Your task to perform on an android device: What is the recent news? Image 0: 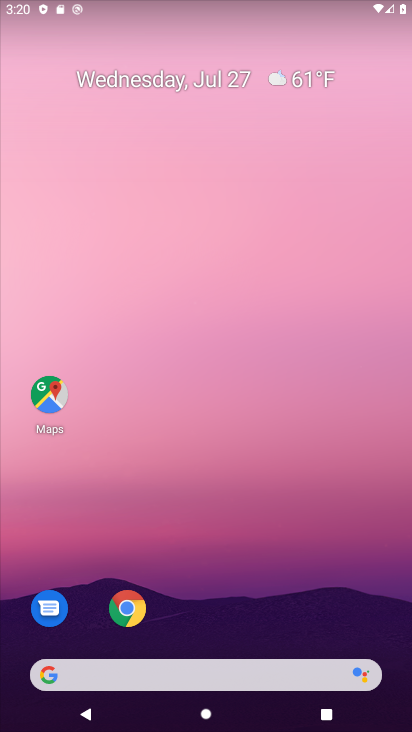
Step 0: drag from (1, 206) to (337, 207)
Your task to perform on an android device: What is the recent news? Image 1: 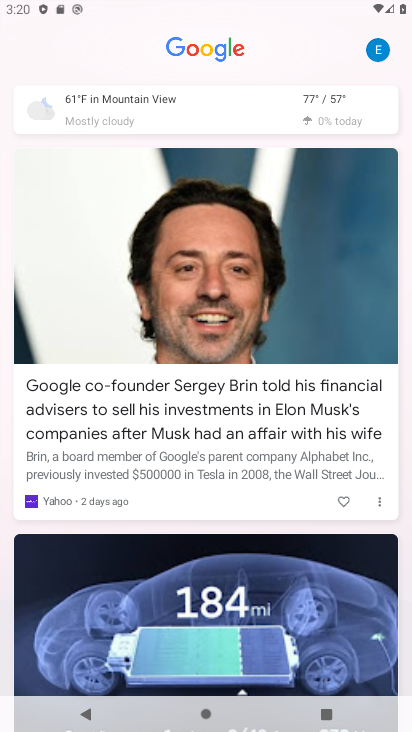
Step 1: task complete